Your task to perform on an android device: open the mobile data screen to see how much data has been used Image 0: 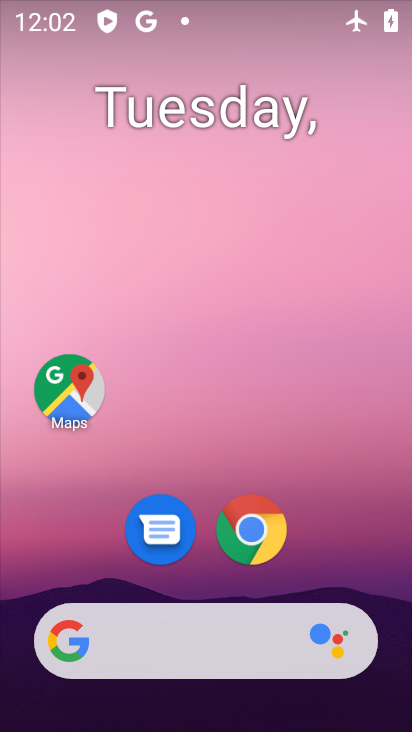
Step 0: drag from (211, 721) to (213, 103)
Your task to perform on an android device: open the mobile data screen to see how much data has been used Image 1: 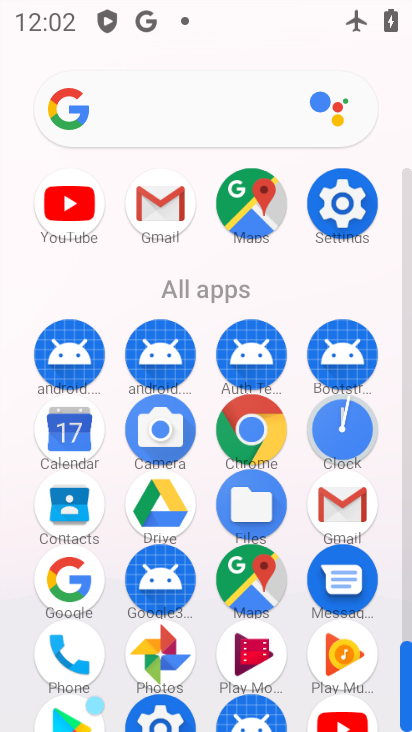
Step 1: click (349, 206)
Your task to perform on an android device: open the mobile data screen to see how much data has been used Image 2: 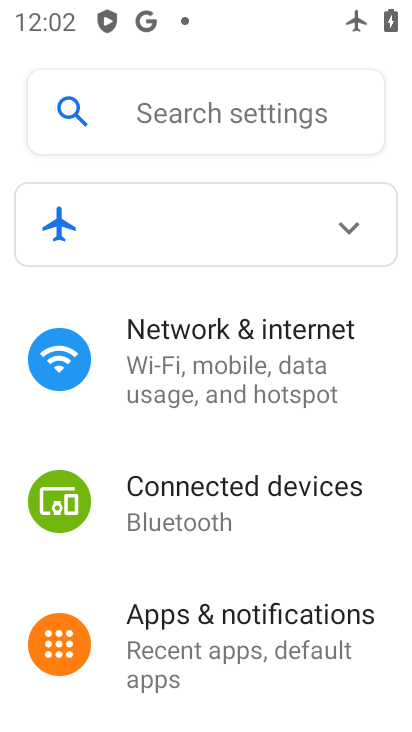
Step 2: click (200, 379)
Your task to perform on an android device: open the mobile data screen to see how much data has been used Image 3: 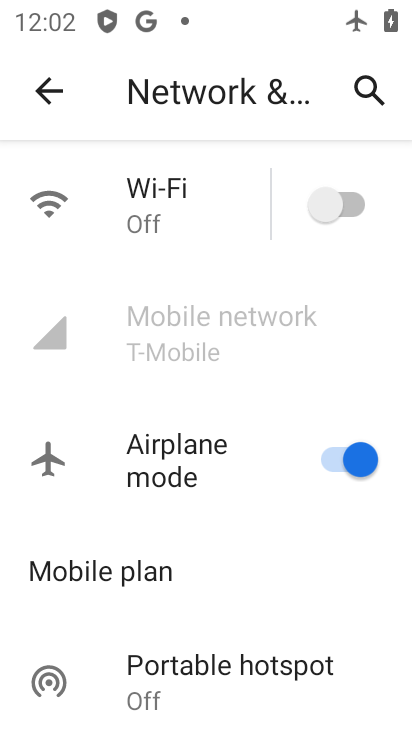
Step 3: click (334, 465)
Your task to perform on an android device: open the mobile data screen to see how much data has been used Image 4: 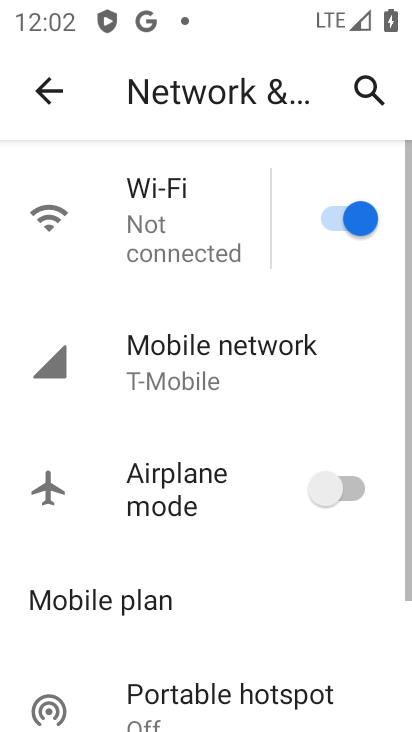
Step 4: click (214, 334)
Your task to perform on an android device: open the mobile data screen to see how much data has been used Image 5: 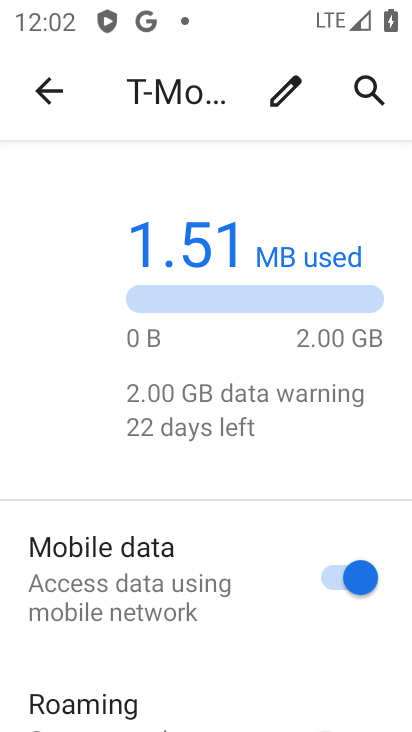
Step 5: drag from (136, 607) to (149, 206)
Your task to perform on an android device: open the mobile data screen to see how much data has been used Image 6: 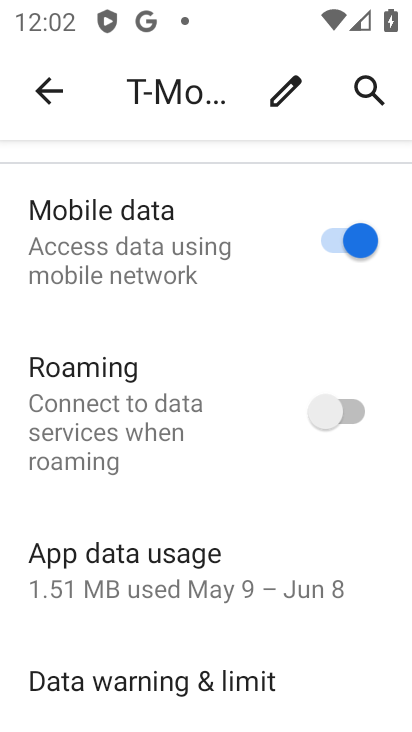
Step 6: click (104, 557)
Your task to perform on an android device: open the mobile data screen to see how much data has been used Image 7: 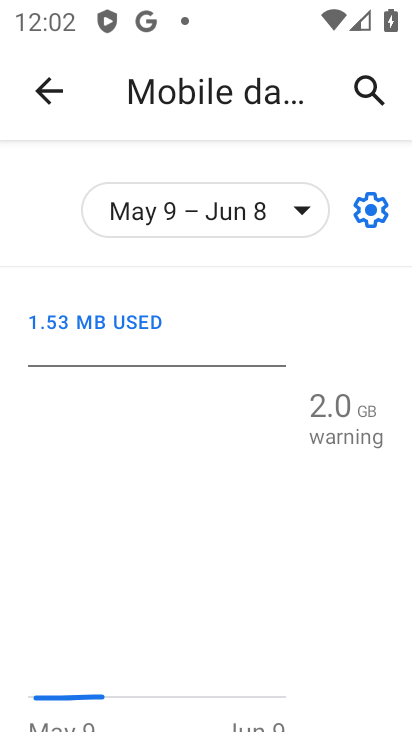
Step 7: task complete